Your task to perform on an android device: all mails in gmail Image 0: 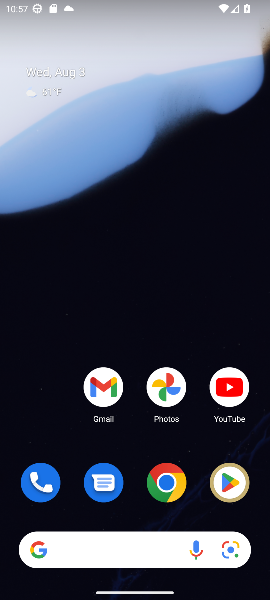
Step 0: click (114, 396)
Your task to perform on an android device: all mails in gmail Image 1: 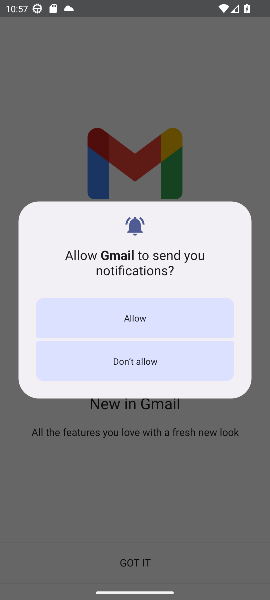
Step 1: click (122, 308)
Your task to perform on an android device: all mails in gmail Image 2: 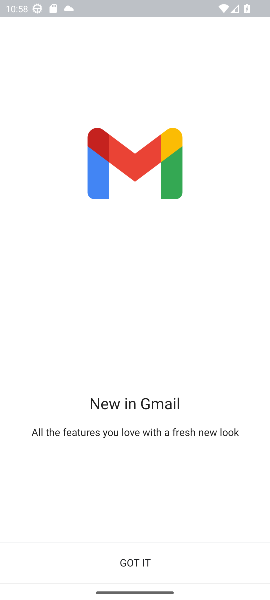
Step 2: click (102, 561)
Your task to perform on an android device: all mails in gmail Image 3: 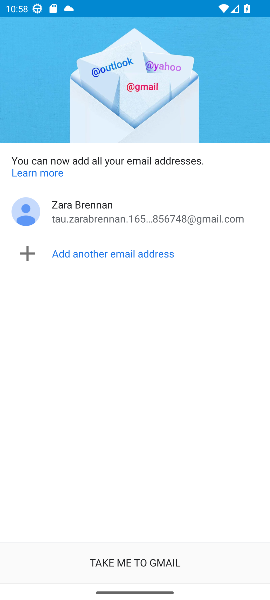
Step 3: click (105, 558)
Your task to perform on an android device: all mails in gmail Image 4: 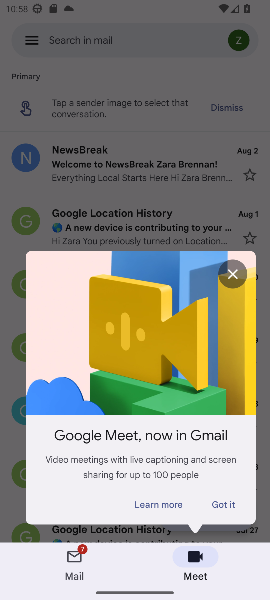
Step 4: click (226, 500)
Your task to perform on an android device: all mails in gmail Image 5: 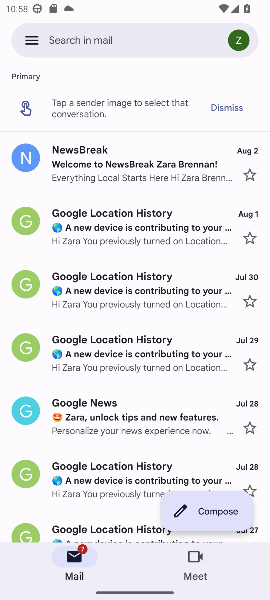
Step 5: task complete